Your task to perform on an android device: turn on bluetooth scan Image 0: 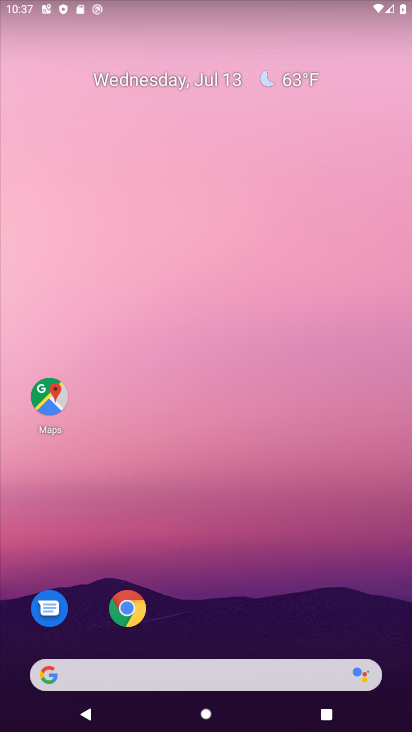
Step 0: drag from (245, 595) to (293, 47)
Your task to perform on an android device: turn on bluetooth scan Image 1: 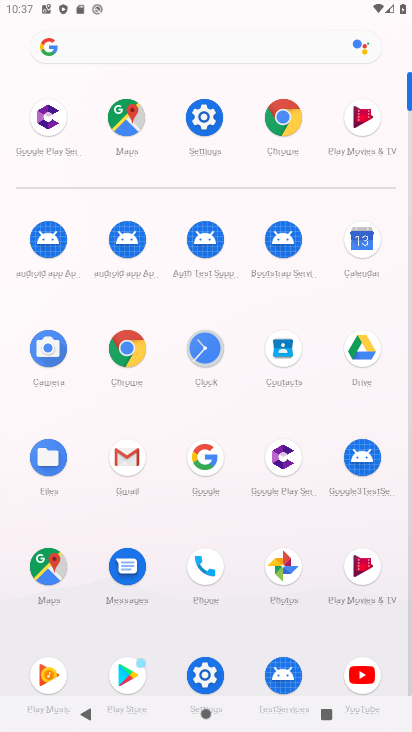
Step 1: click (209, 670)
Your task to perform on an android device: turn on bluetooth scan Image 2: 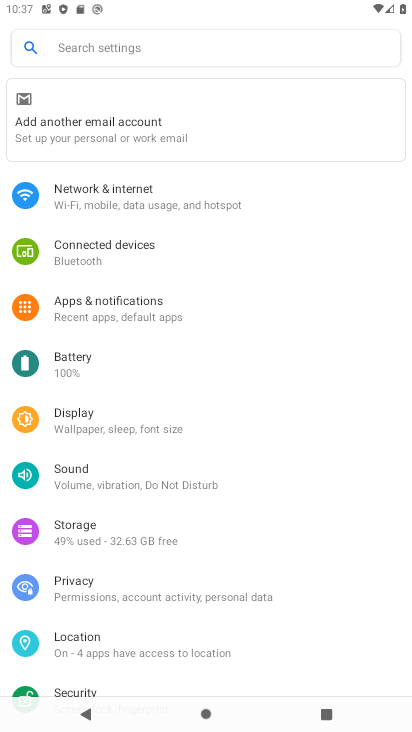
Step 2: click (133, 648)
Your task to perform on an android device: turn on bluetooth scan Image 3: 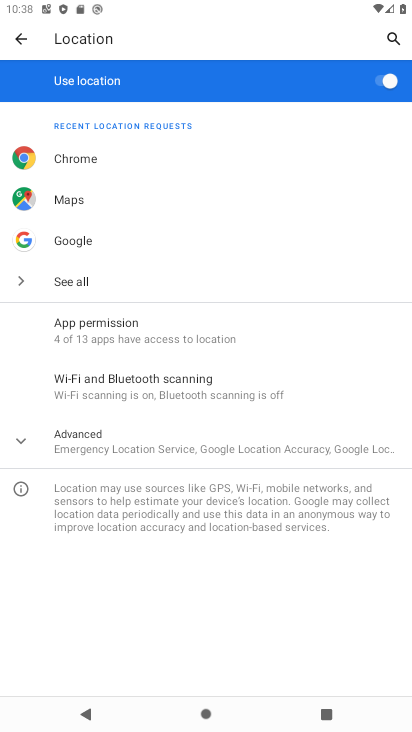
Step 3: click (124, 437)
Your task to perform on an android device: turn on bluetooth scan Image 4: 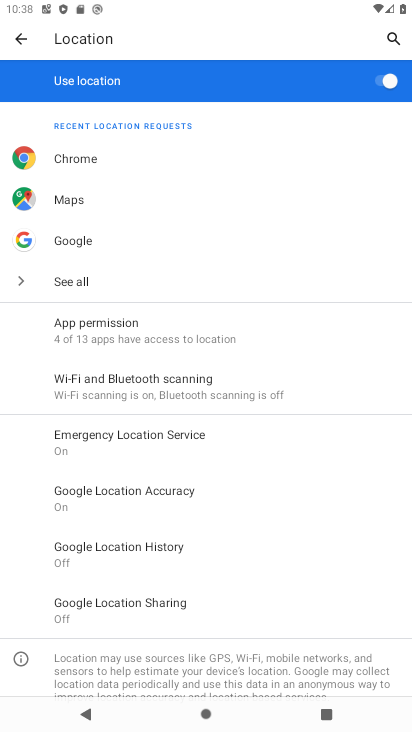
Step 4: click (142, 390)
Your task to perform on an android device: turn on bluetooth scan Image 5: 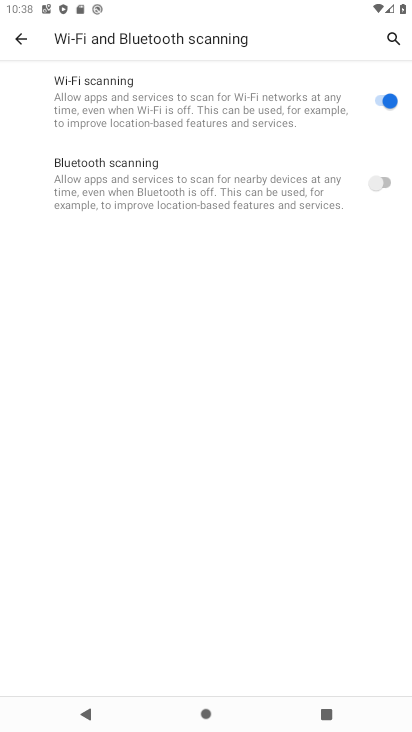
Step 5: click (368, 179)
Your task to perform on an android device: turn on bluetooth scan Image 6: 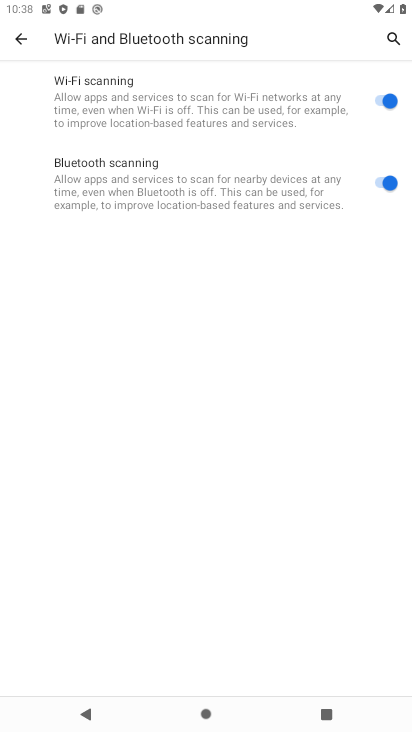
Step 6: task complete